Your task to perform on an android device: uninstall "NewsBreak: Local News & Alerts" Image 0: 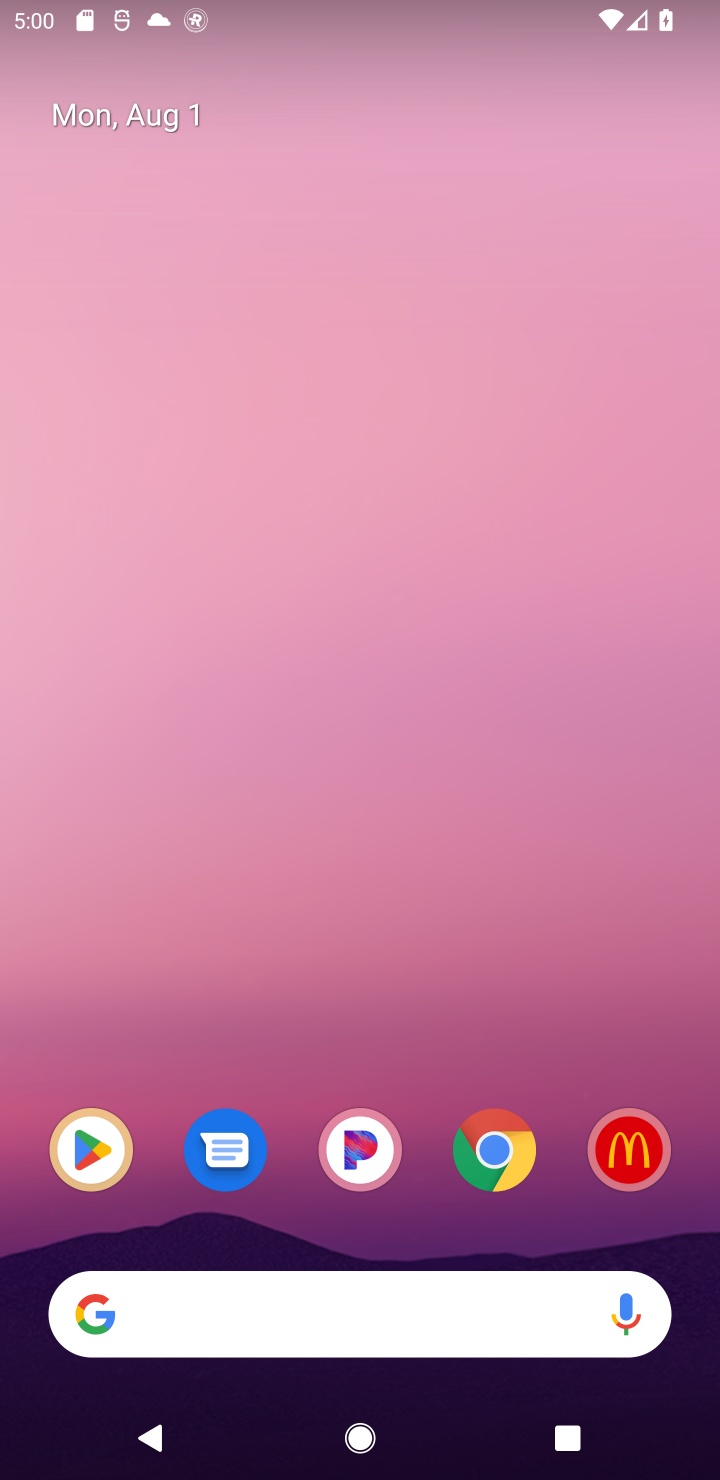
Step 0: click (58, 1152)
Your task to perform on an android device: uninstall "NewsBreak: Local News & Alerts" Image 1: 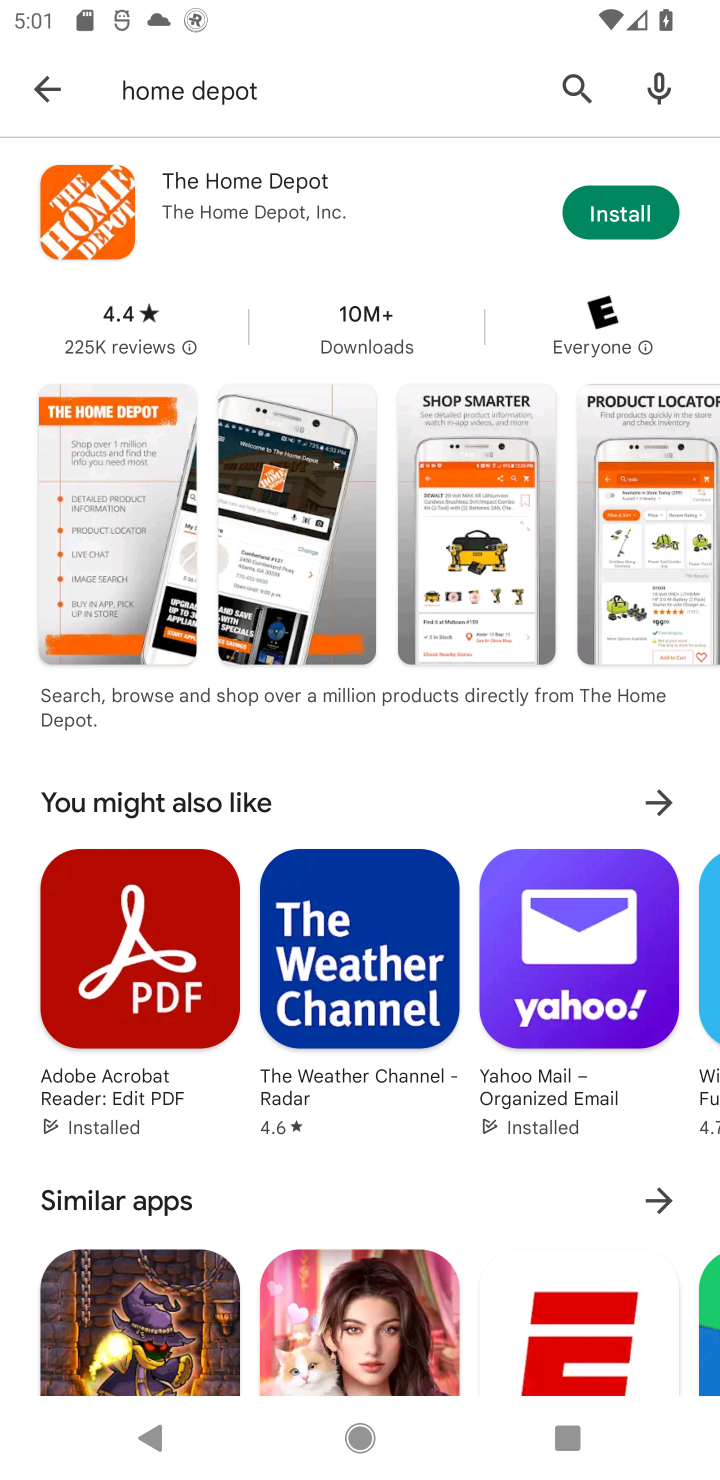
Step 1: click (546, 89)
Your task to perform on an android device: uninstall "NewsBreak: Local News & Alerts" Image 2: 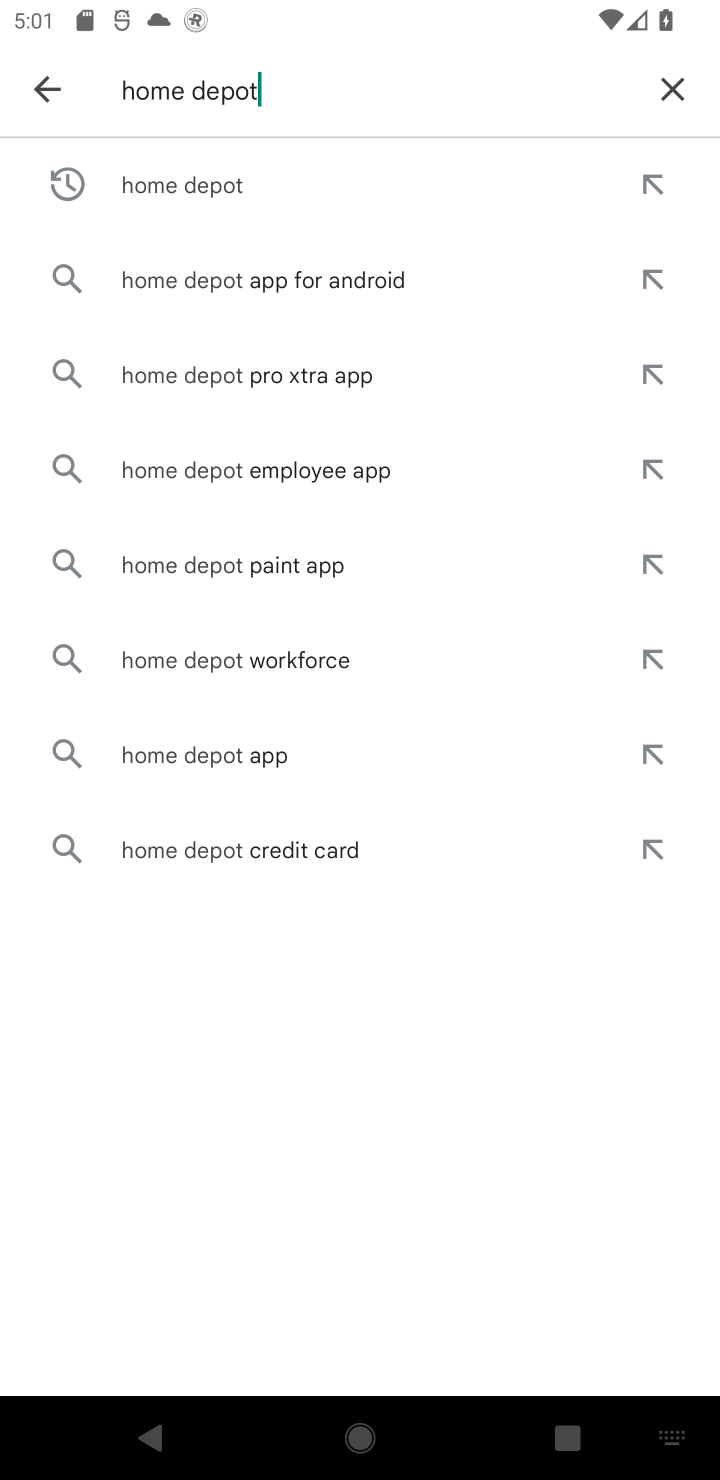
Step 2: click (682, 87)
Your task to perform on an android device: uninstall "NewsBreak: Local News & Alerts" Image 3: 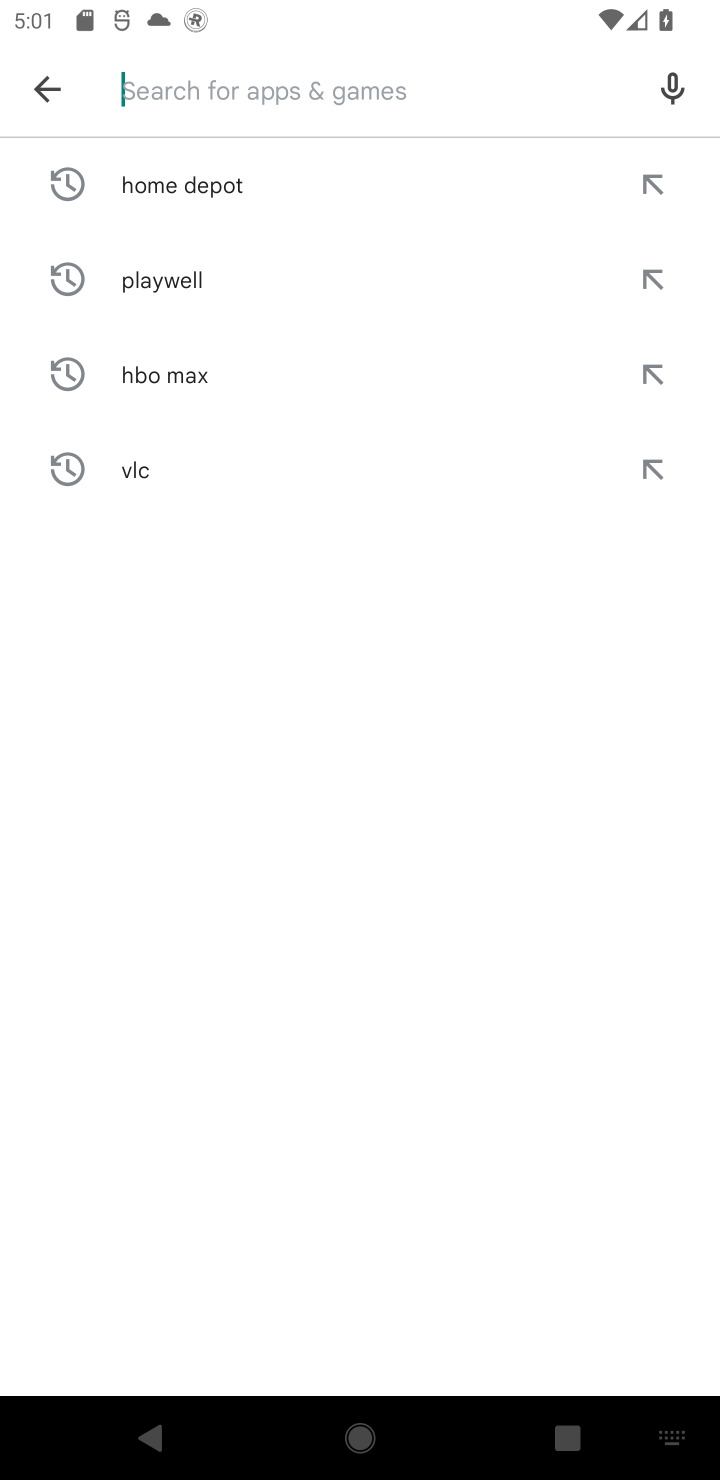
Step 3: type "newsbreak"
Your task to perform on an android device: uninstall "NewsBreak: Local News & Alerts" Image 4: 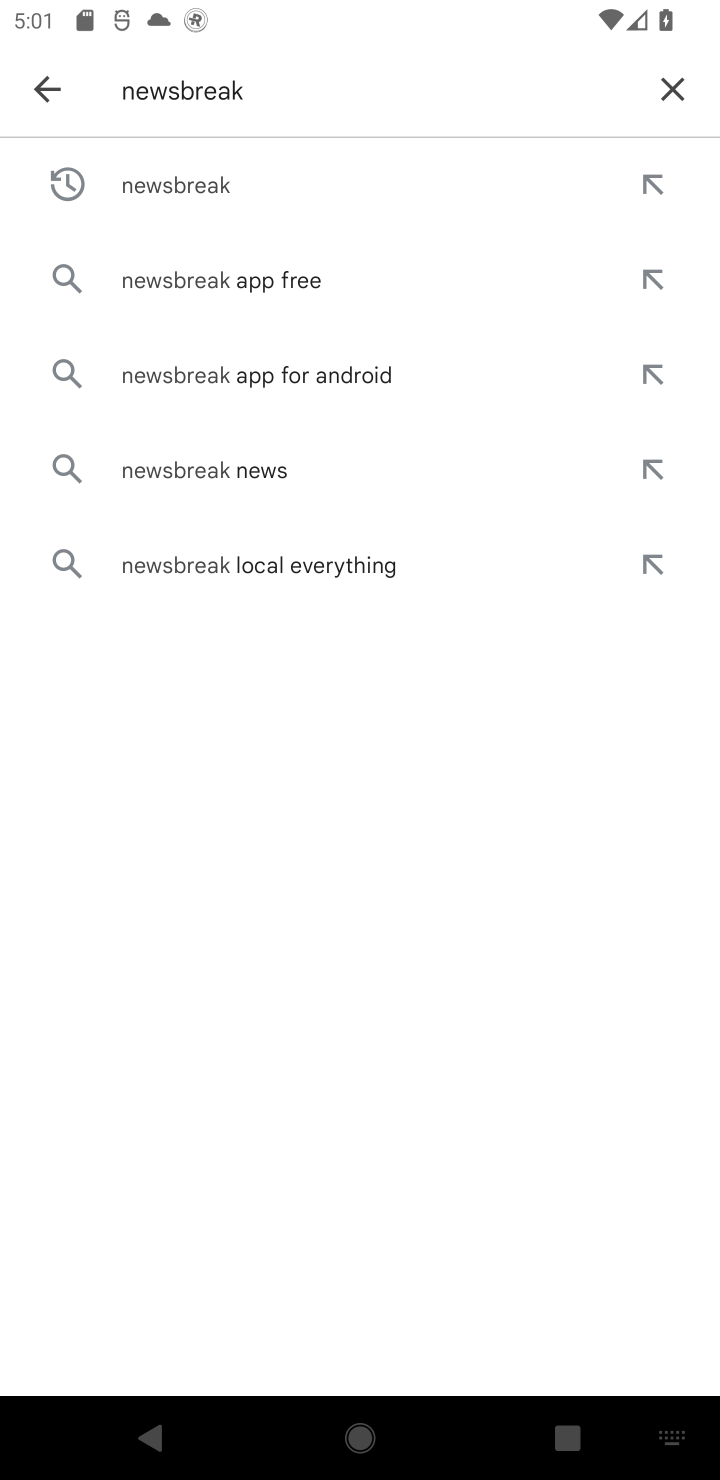
Step 4: click (300, 193)
Your task to perform on an android device: uninstall "NewsBreak: Local News & Alerts" Image 5: 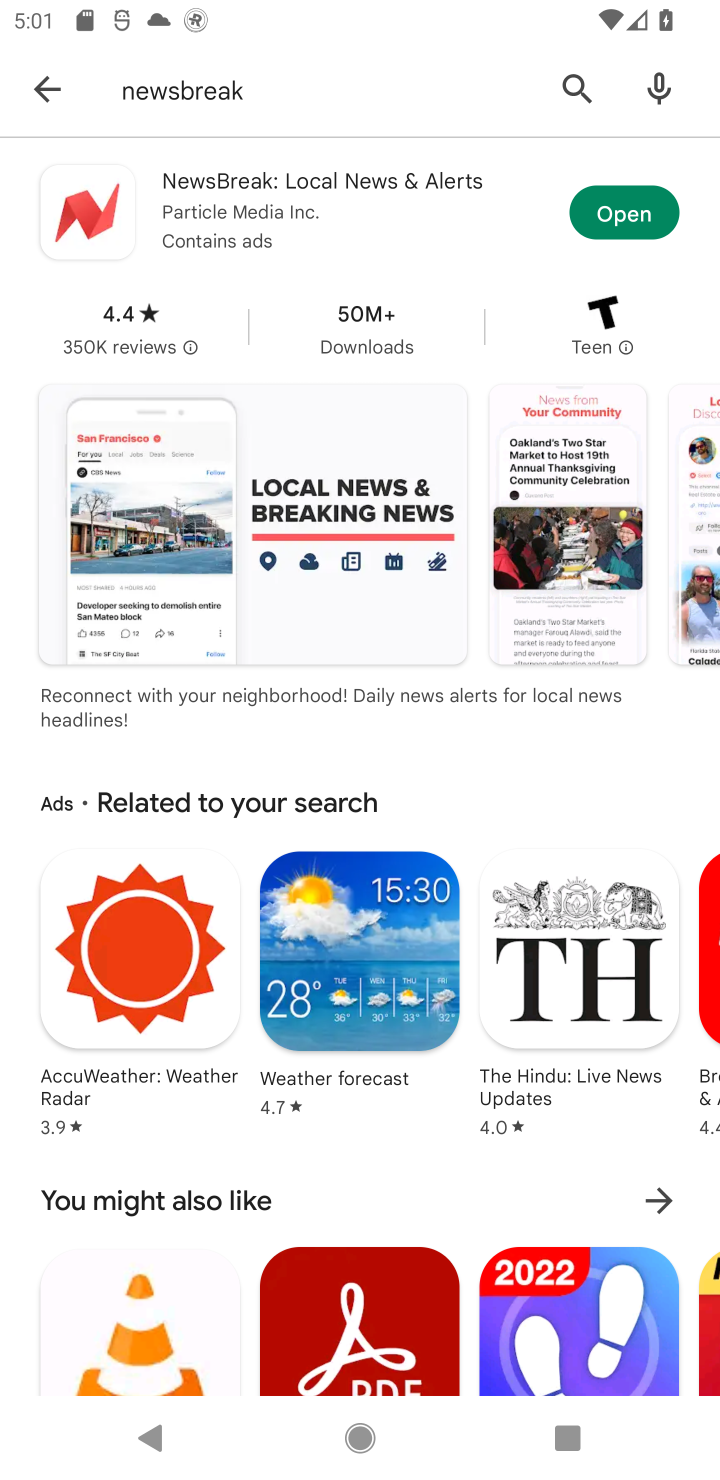
Step 5: task complete